Your task to perform on an android device: Search for flights from Buenos aires to Helsinki Image 0: 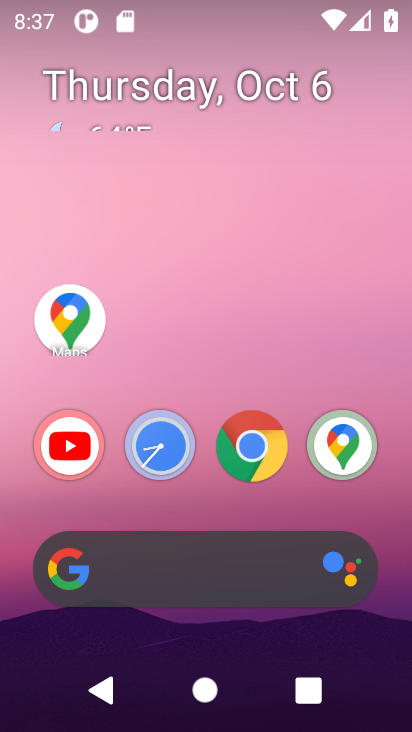
Step 0: click (159, 582)
Your task to perform on an android device: Search for flights from Buenos aires to Helsinki Image 1: 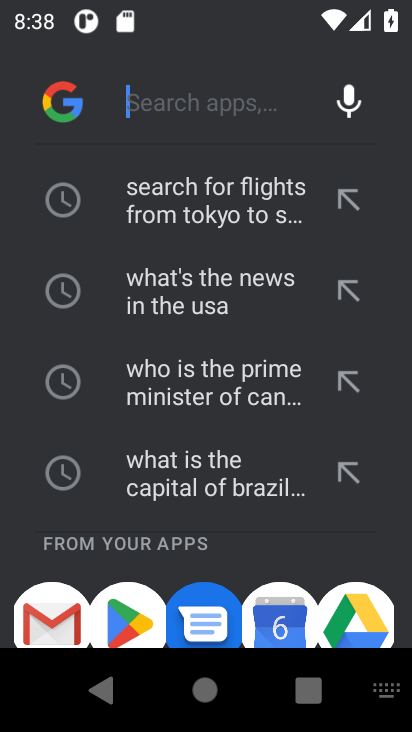
Step 1: type "Search for flights from Buenos aires to Helsinki"
Your task to perform on an android device: Search for flights from Buenos aires to Helsinki Image 2: 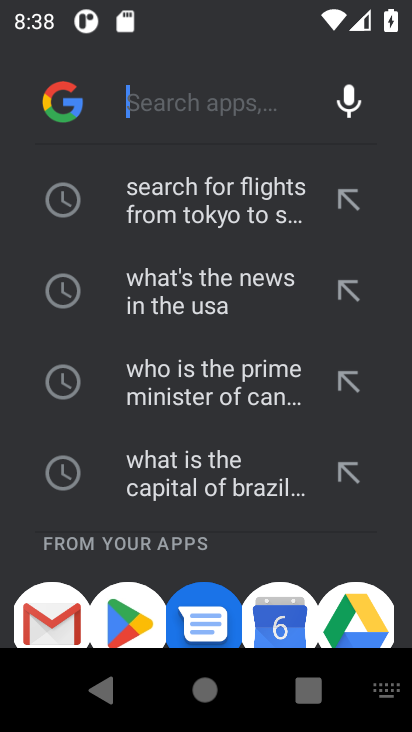
Step 2: click (174, 110)
Your task to perform on an android device: Search for flights from Buenos aires to Helsinki Image 3: 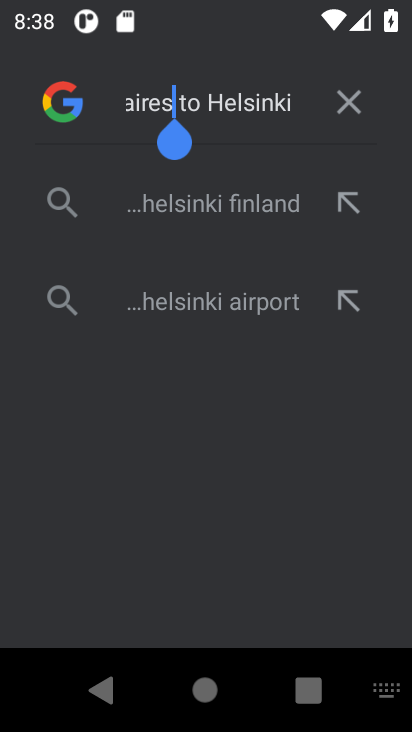
Step 3: task complete